Your task to perform on an android device: open a bookmark in the chrome app Image 0: 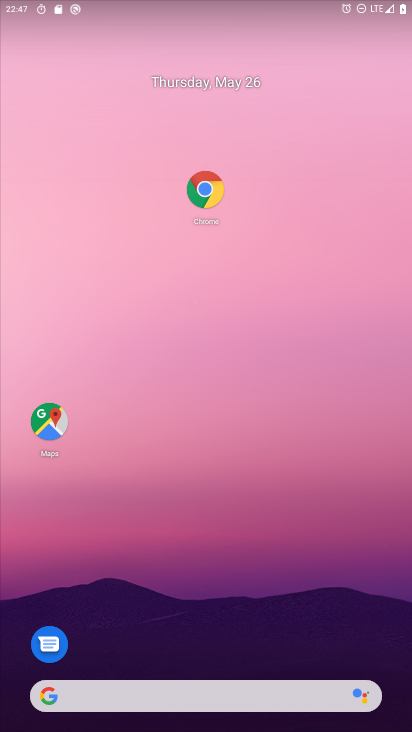
Step 0: drag from (210, 676) to (176, 263)
Your task to perform on an android device: open a bookmark in the chrome app Image 1: 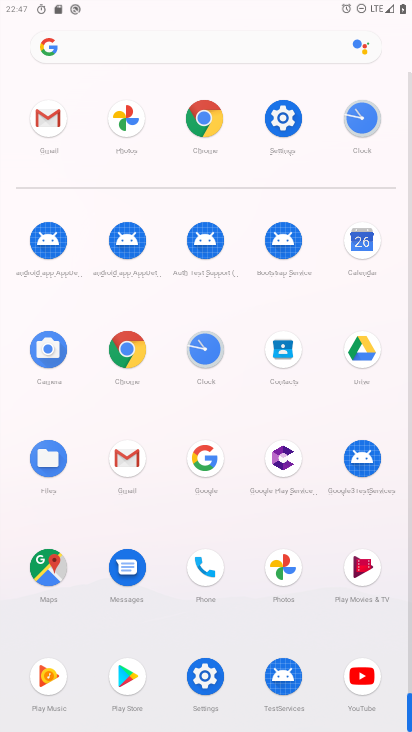
Step 1: click (131, 358)
Your task to perform on an android device: open a bookmark in the chrome app Image 2: 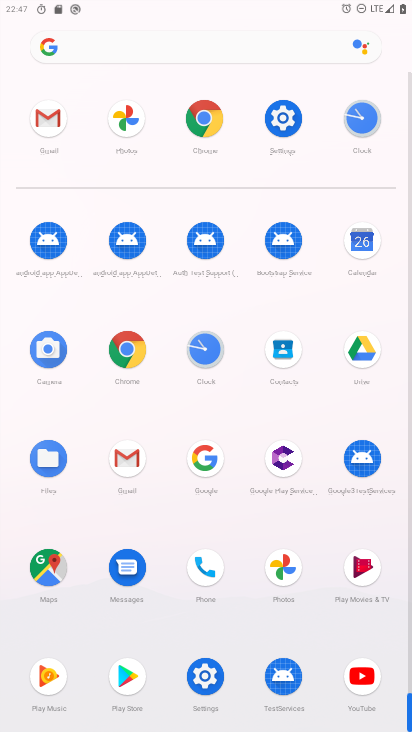
Step 2: click (131, 348)
Your task to perform on an android device: open a bookmark in the chrome app Image 3: 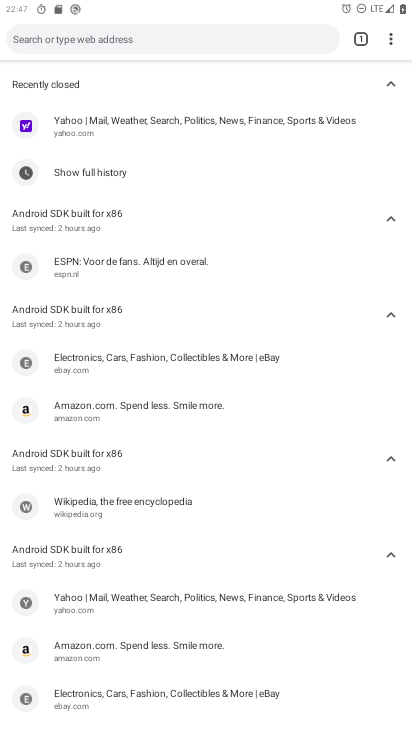
Step 3: task complete